Your task to perform on an android device: check google app version Image 0: 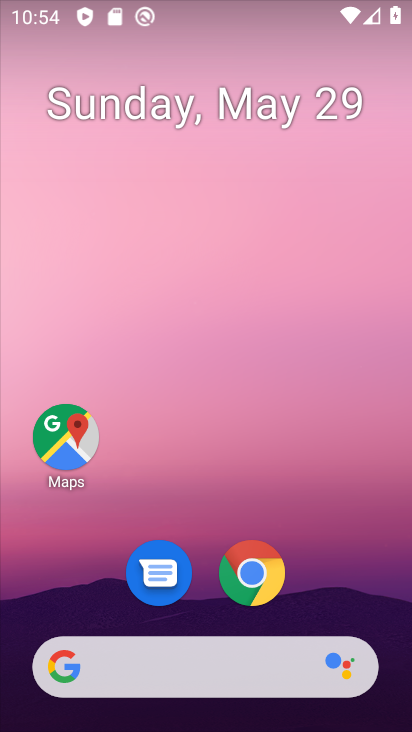
Step 0: drag from (327, 499) to (291, 159)
Your task to perform on an android device: check google app version Image 1: 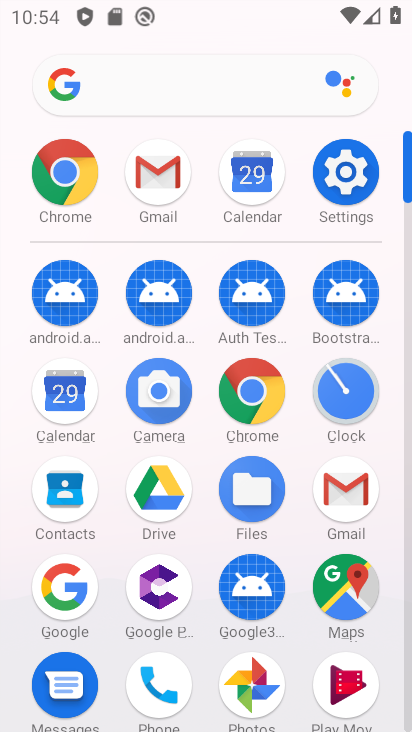
Step 1: click (52, 583)
Your task to perform on an android device: check google app version Image 2: 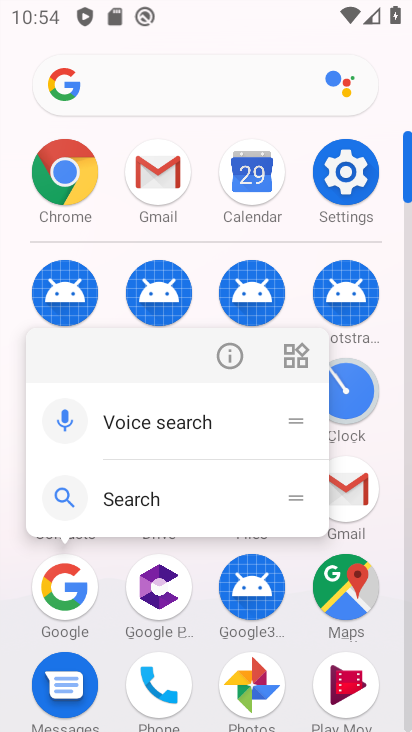
Step 2: click (226, 361)
Your task to perform on an android device: check google app version Image 3: 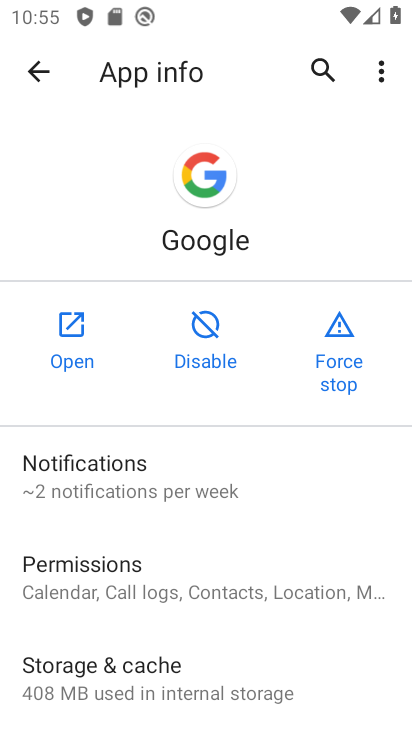
Step 3: drag from (275, 698) to (280, 90)
Your task to perform on an android device: check google app version Image 4: 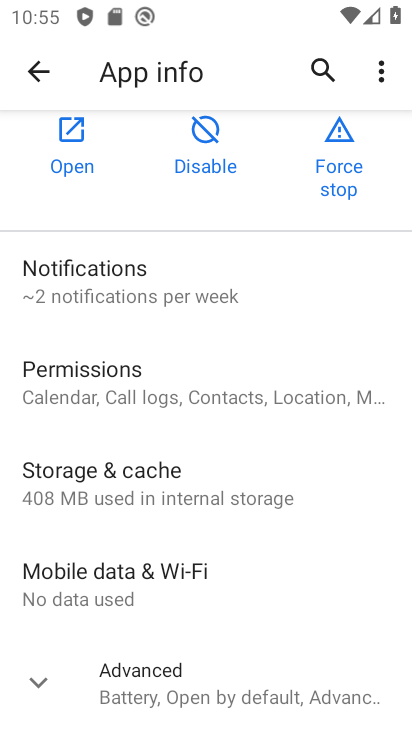
Step 4: click (30, 679)
Your task to perform on an android device: check google app version Image 5: 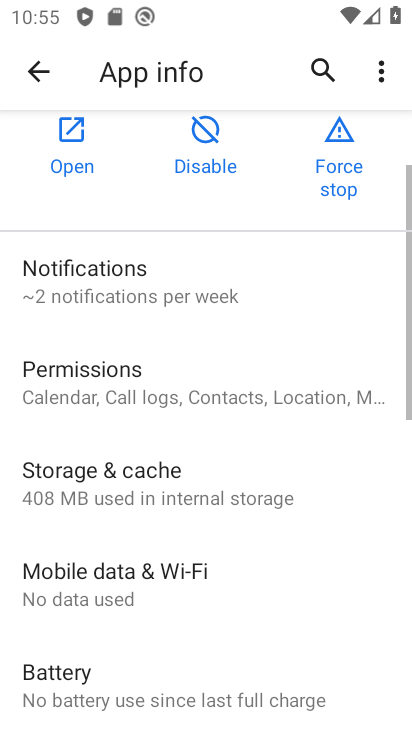
Step 5: task complete